Your task to perform on an android device: Find coffee shops on Maps Image 0: 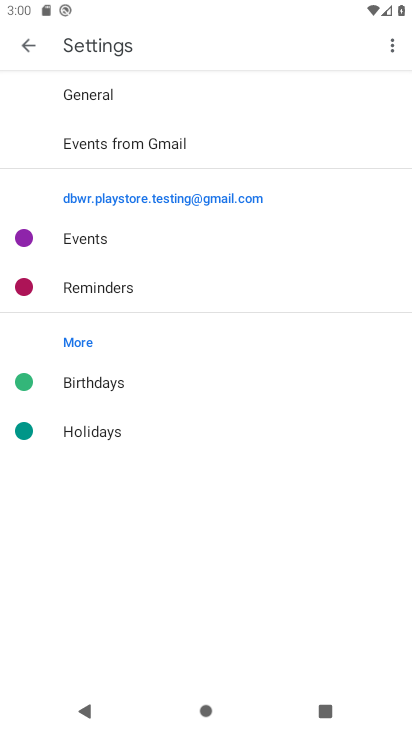
Step 0: press home button
Your task to perform on an android device: Find coffee shops on Maps Image 1: 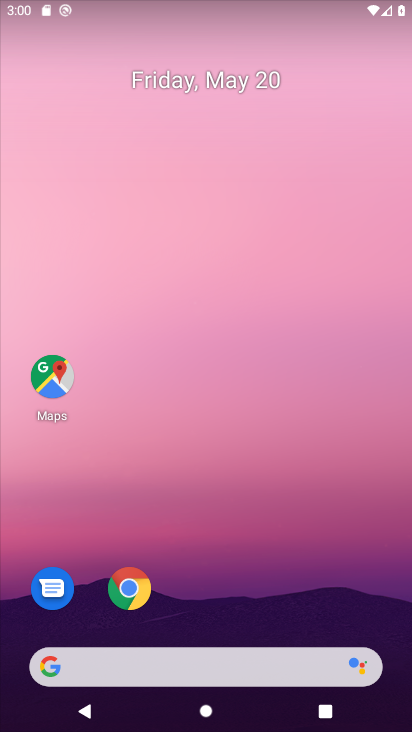
Step 1: click (54, 382)
Your task to perform on an android device: Find coffee shops on Maps Image 2: 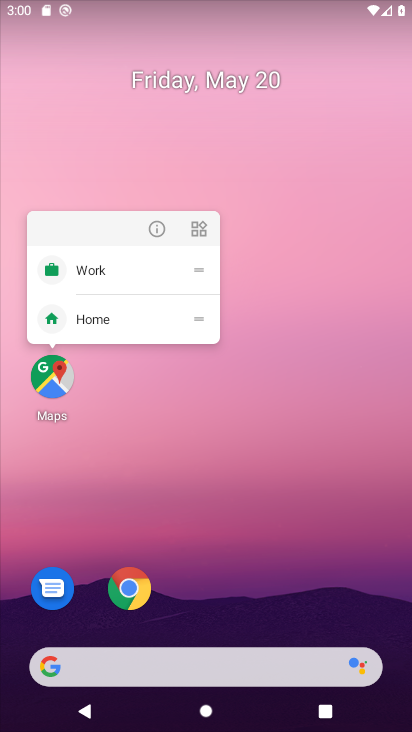
Step 2: click (54, 382)
Your task to perform on an android device: Find coffee shops on Maps Image 3: 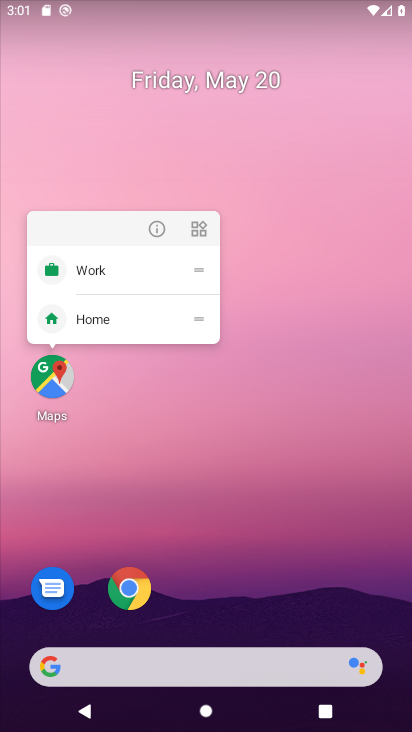
Step 3: click (45, 383)
Your task to perform on an android device: Find coffee shops on Maps Image 4: 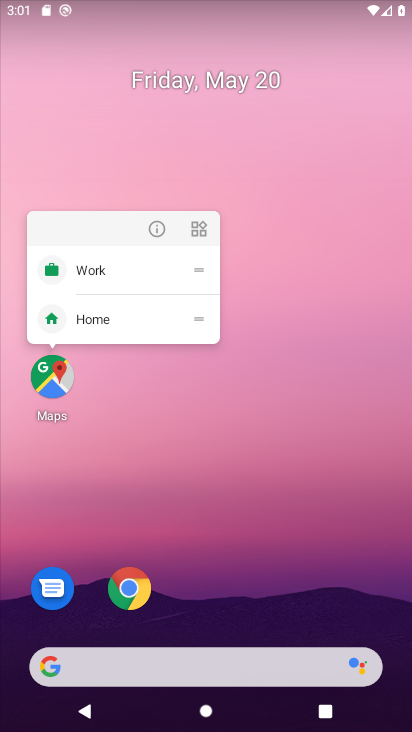
Step 4: click (46, 379)
Your task to perform on an android device: Find coffee shops on Maps Image 5: 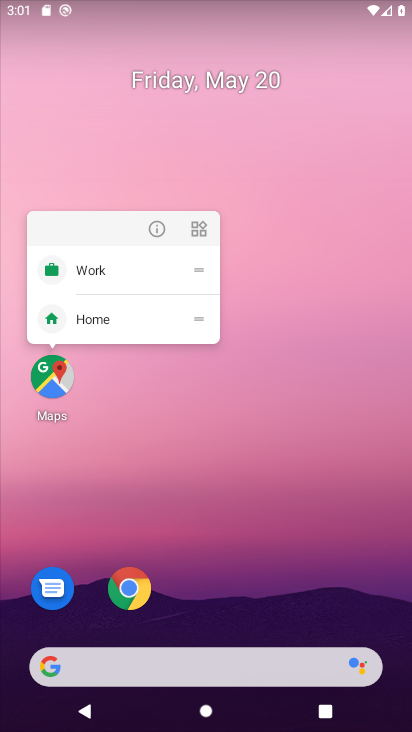
Step 5: click (269, 488)
Your task to perform on an android device: Find coffee shops on Maps Image 6: 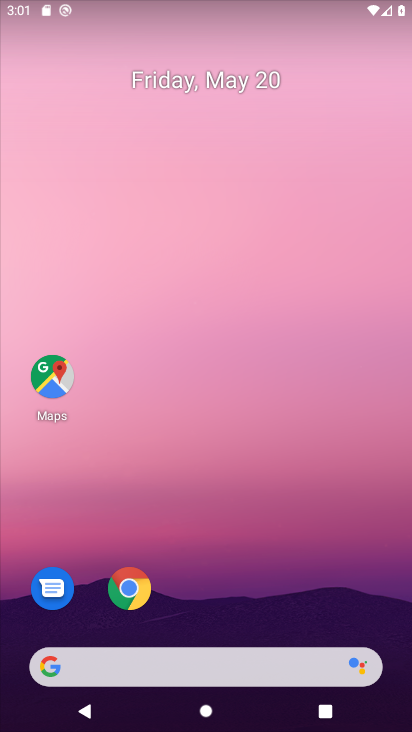
Step 6: drag from (322, 549) to (334, 131)
Your task to perform on an android device: Find coffee shops on Maps Image 7: 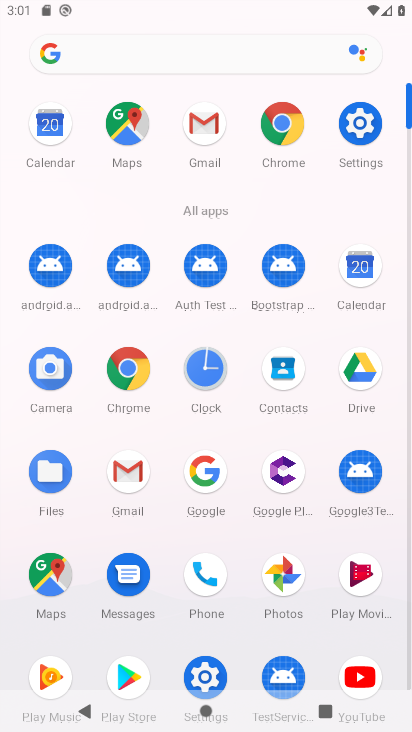
Step 7: click (119, 129)
Your task to perform on an android device: Find coffee shops on Maps Image 8: 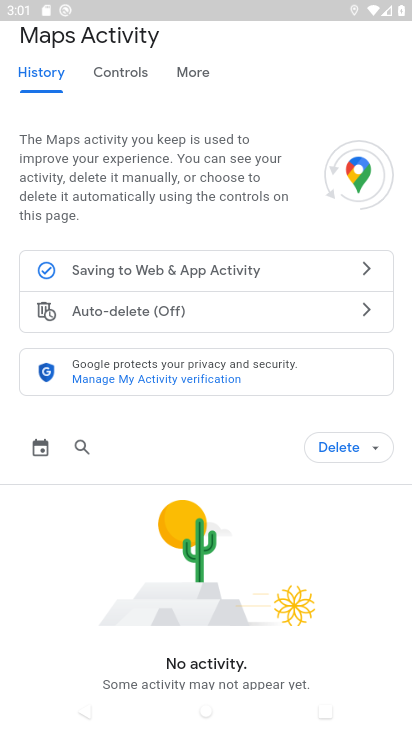
Step 8: press back button
Your task to perform on an android device: Find coffee shops on Maps Image 9: 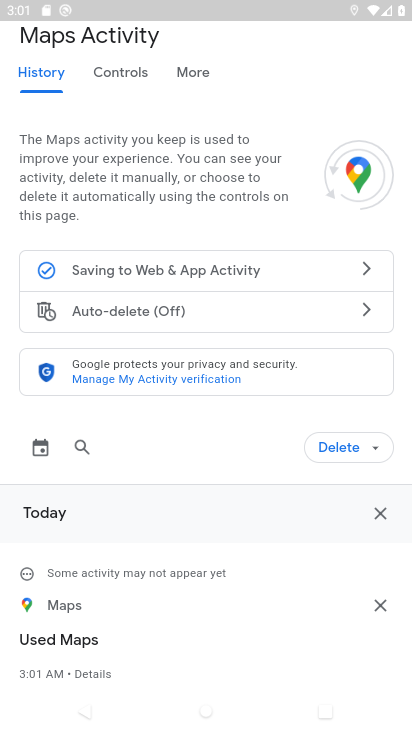
Step 9: press back button
Your task to perform on an android device: Find coffee shops on Maps Image 10: 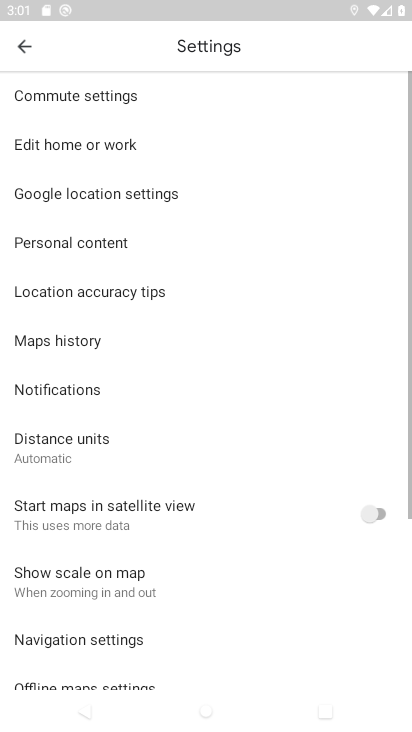
Step 10: press back button
Your task to perform on an android device: Find coffee shops on Maps Image 11: 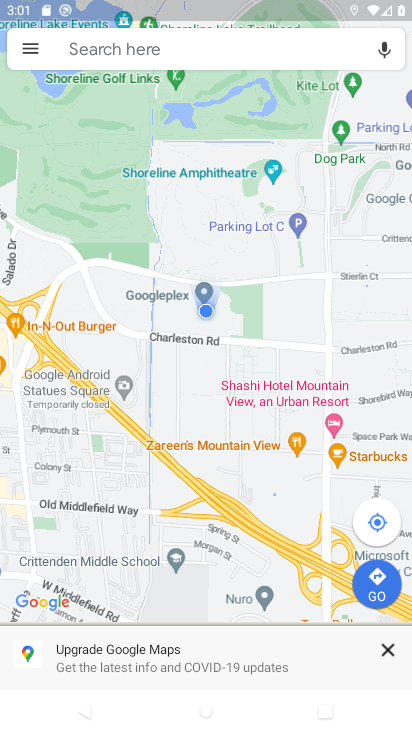
Step 11: click (273, 48)
Your task to perform on an android device: Find coffee shops on Maps Image 12: 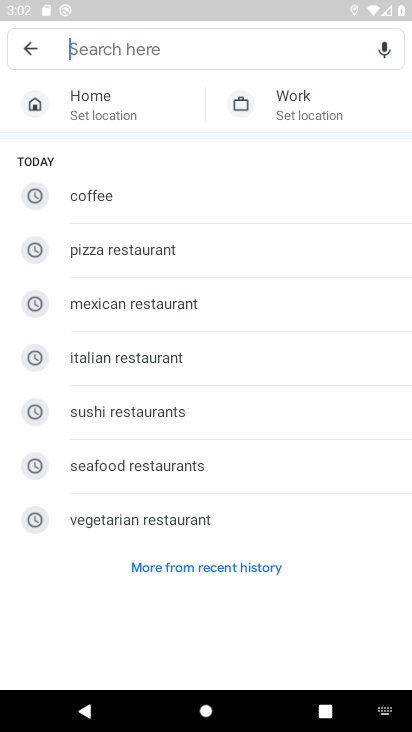
Step 12: type "coffee shops"
Your task to perform on an android device: Find coffee shops on Maps Image 13: 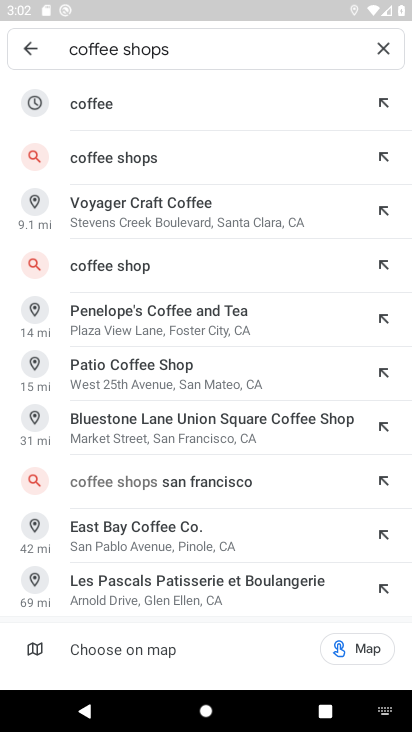
Step 13: click (219, 161)
Your task to perform on an android device: Find coffee shops on Maps Image 14: 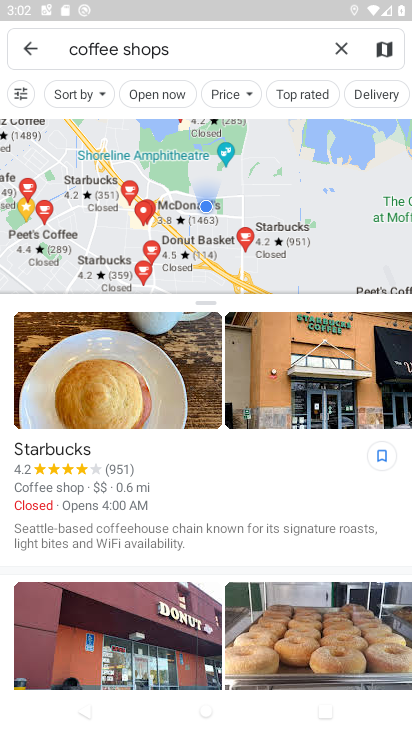
Step 14: task complete